Your task to perform on an android device: When is my next meeting? Image 0: 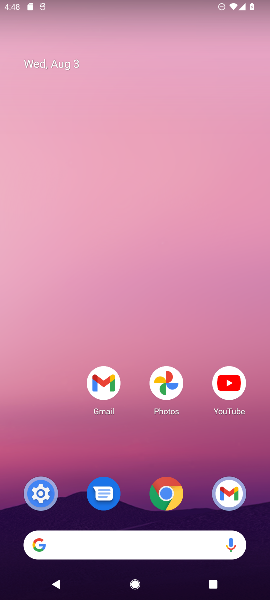
Step 0: press home button
Your task to perform on an android device: When is my next meeting? Image 1: 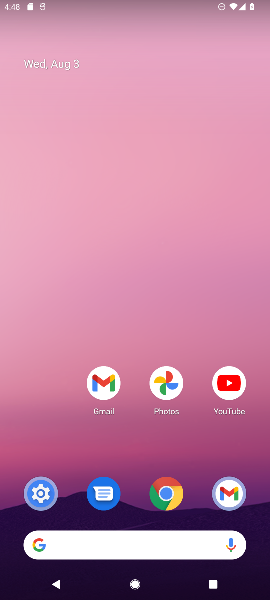
Step 1: drag from (65, 465) to (76, 185)
Your task to perform on an android device: When is my next meeting? Image 2: 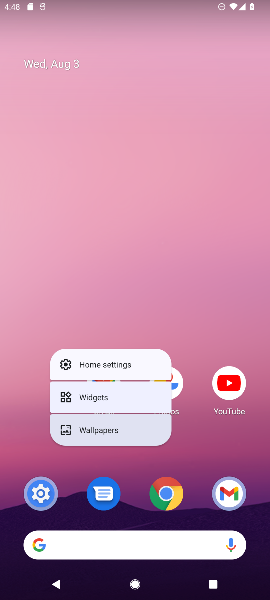
Step 2: click (30, 365)
Your task to perform on an android device: When is my next meeting? Image 3: 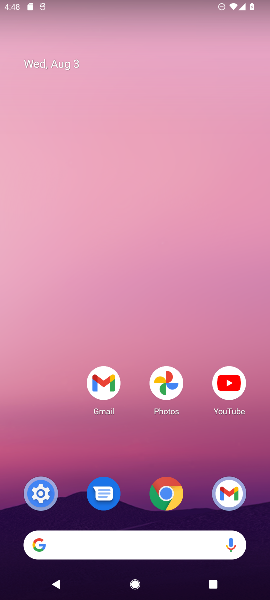
Step 3: drag from (28, 421) to (49, 88)
Your task to perform on an android device: When is my next meeting? Image 4: 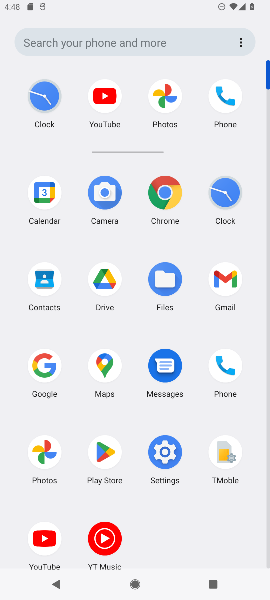
Step 4: click (44, 191)
Your task to perform on an android device: When is my next meeting? Image 5: 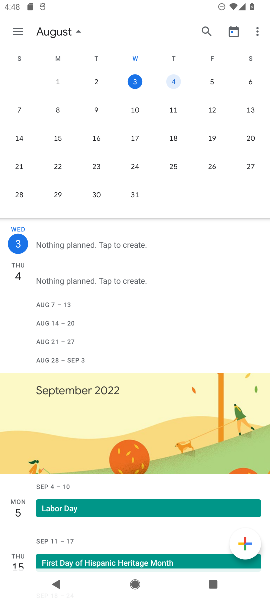
Step 5: task complete